Your task to perform on an android device: Go to calendar. Show me events next week Image 0: 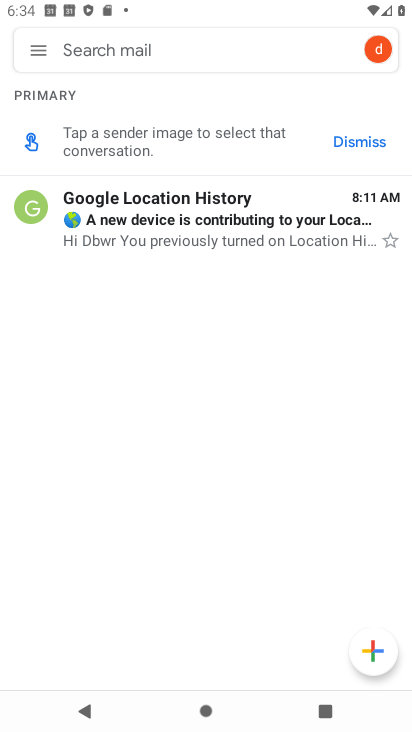
Step 0: press home button
Your task to perform on an android device: Go to calendar. Show me events next week Image 1: 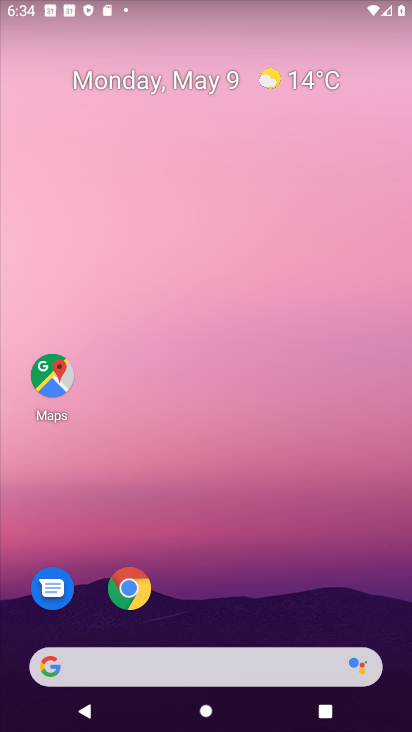
Step 1: drag from (233, 591) to (251, 66)
Your task to perform on an android device: Go to calendar. Show me events next week Image 2: 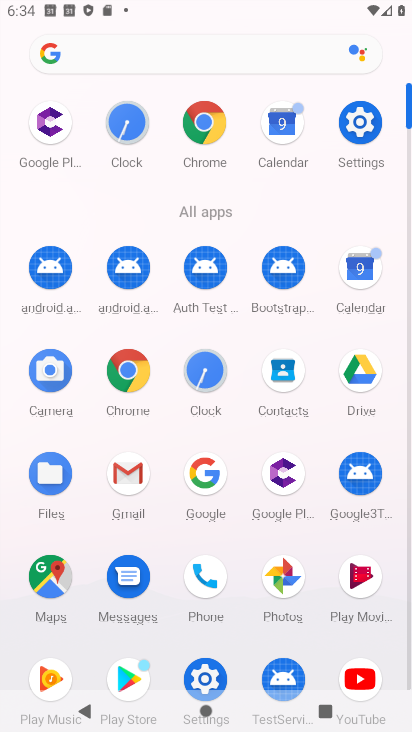
Step 2: click (366, 283)
Your task to perform on an android device: Go to calendar. Show me events next week Image 3: 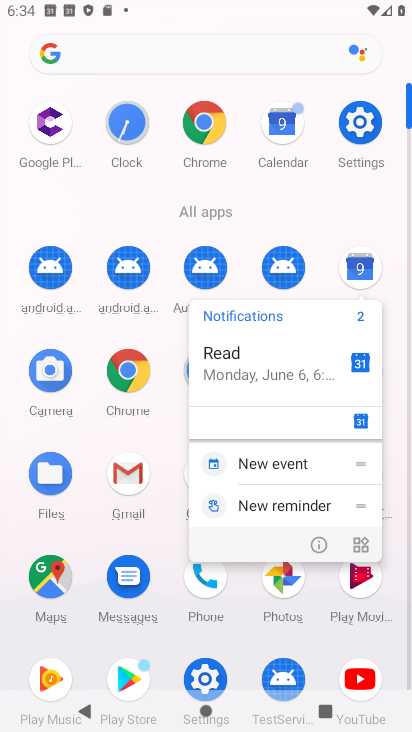
Step 3: click (347, 268)
Your task to perform on an android device: Go to calendar. Show me events next week Image 4: 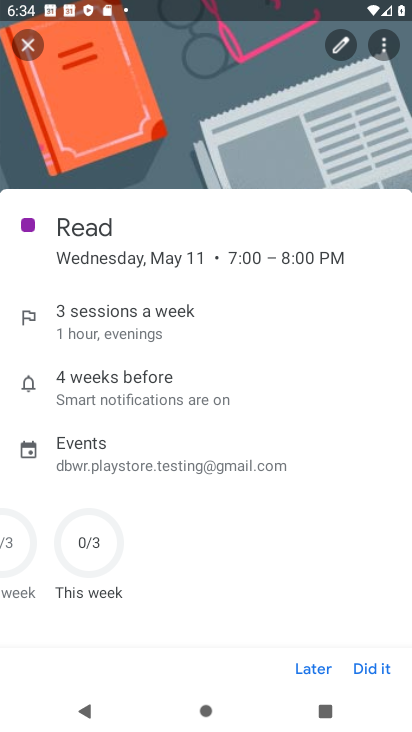
Step 4: click (28, 39)
Your task to perform on an android device: Go to calendar. Show me events next week Image 5: 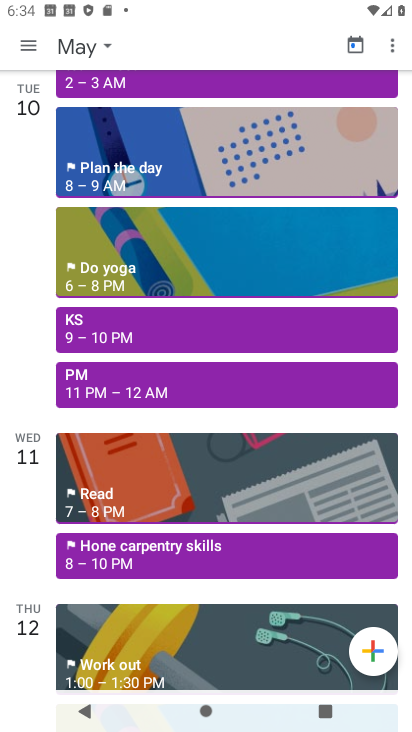
Step 5: click (23, 50)
Your task to perform on an android device: Go to calendar. Show me events next week Image 6: 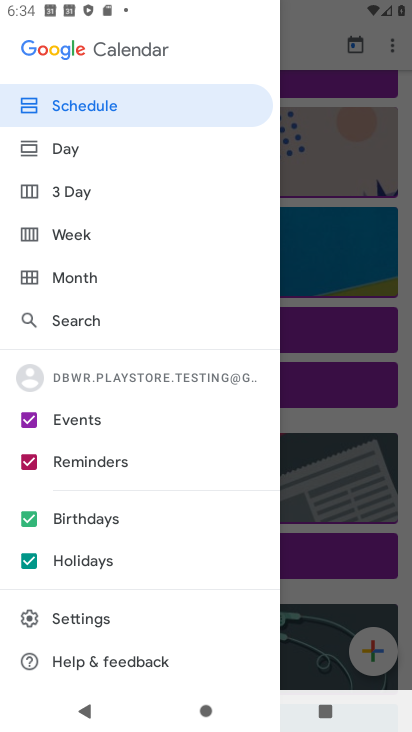
Step 6: click (133, 112)
Your task to perform on an android device: Go to calendar. Show me events next week Image 7: 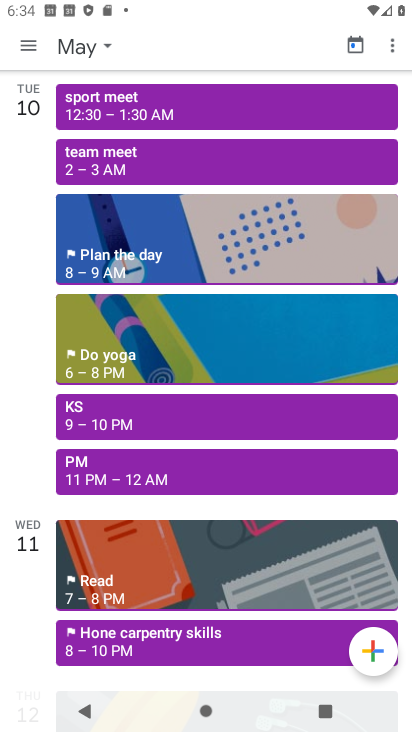
Step 7: click (28, 47)
Your task to perform on an android device: Go to calendar. Show me events next week Image 8: 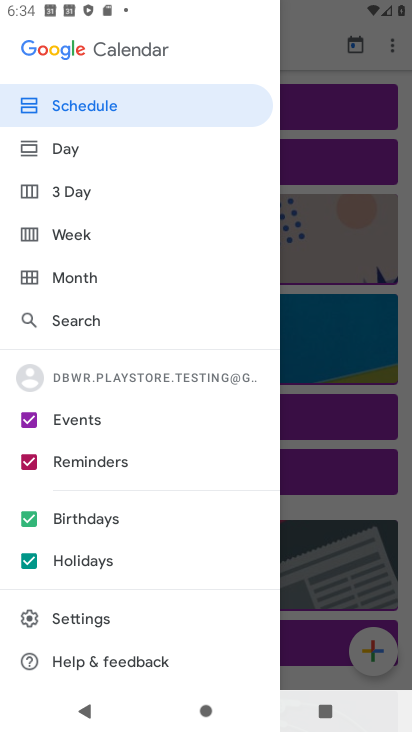
Step 8: click (186, 101)
Your task to perform on an android device: Go to calendar. Show me events next week Image 9: 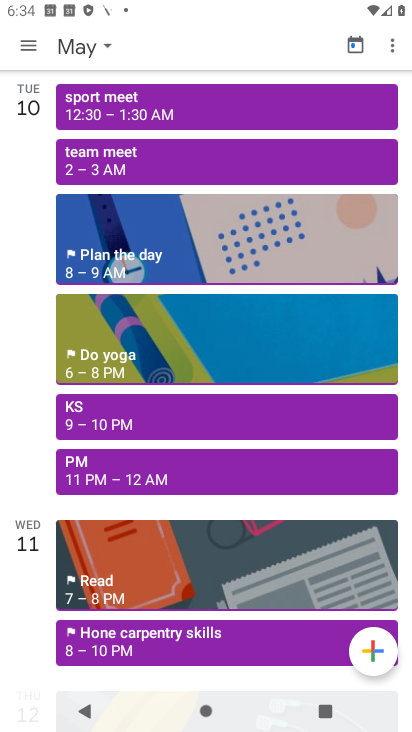
Step 9: click (86, 36)
Your task to perform on an android device: Go to calendar. Show me events next week Image 10: 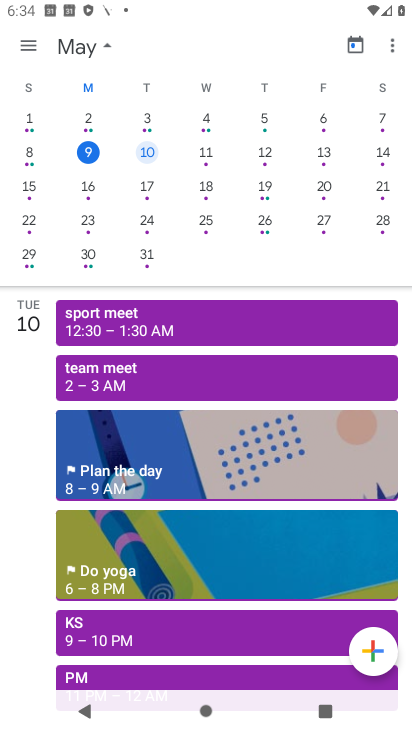
Step 10: click (34, 185)
Your task to perform on an android device: Go to calendar. Show me events next week Image 11: 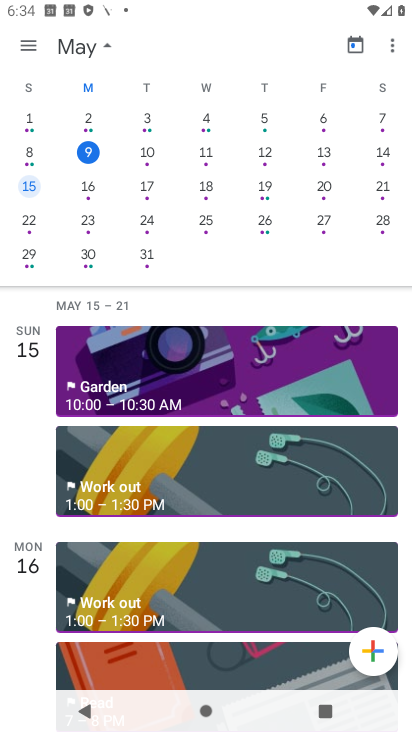
Step 11: click (146, 464)
Your task to perform on an android device: Go to calendar. Show me events next week Image 12: 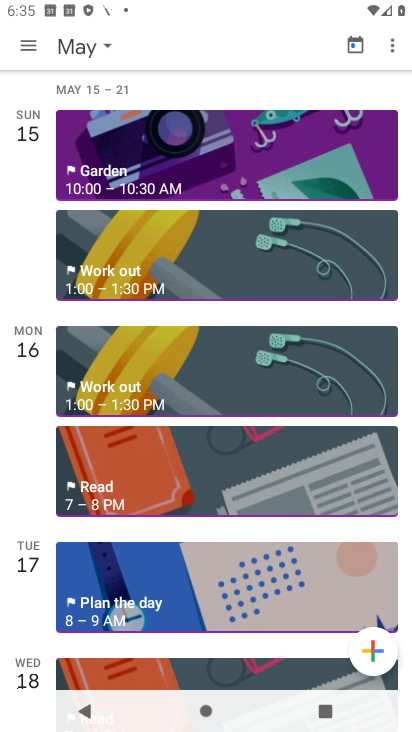
Step 12: click (199, 362)
Your task to perform on an android device: Go to calendar. Show me events next week Image 13: 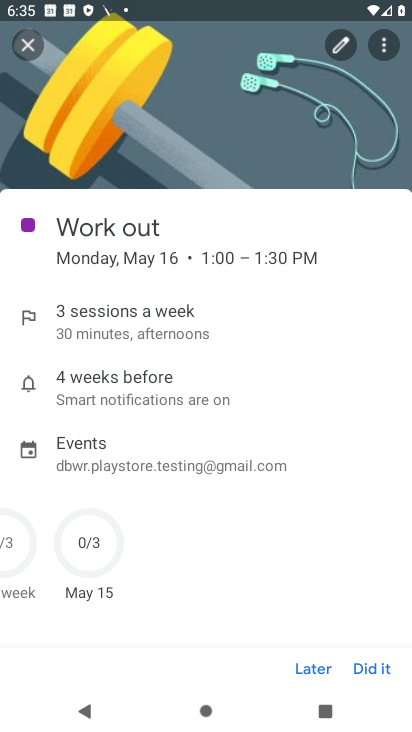
Step 13: task complete